Your task to perform on an android device: Open Yahoo.com Image 0: 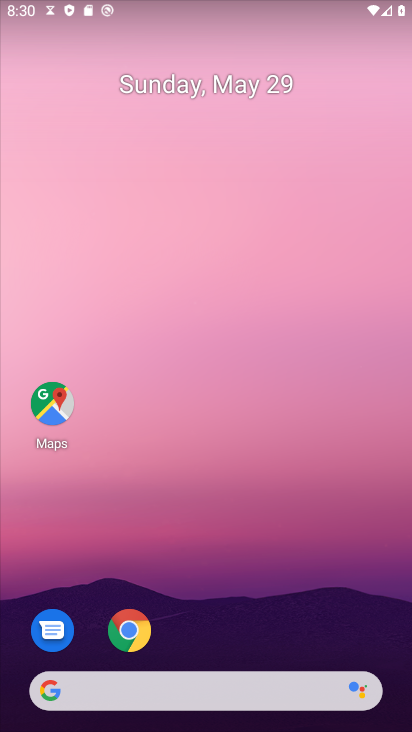
Step 0: click (128, 633)
Your task to perform on an android device: Open Yahoo.com Image 1: 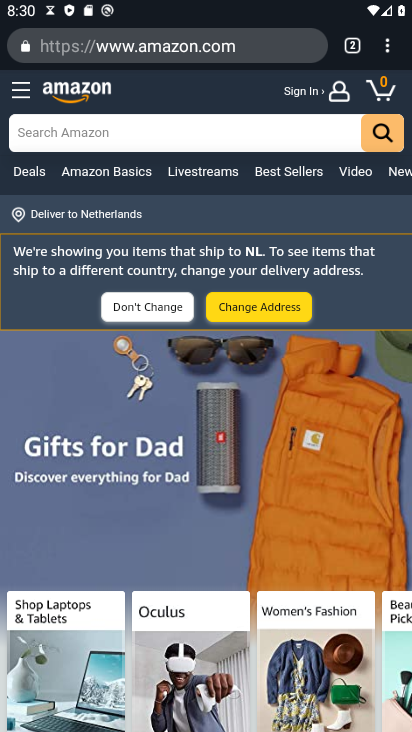
Step 1: click (353, 49)
Your task to perform on an android device: Open Yahoo.com Image 2: 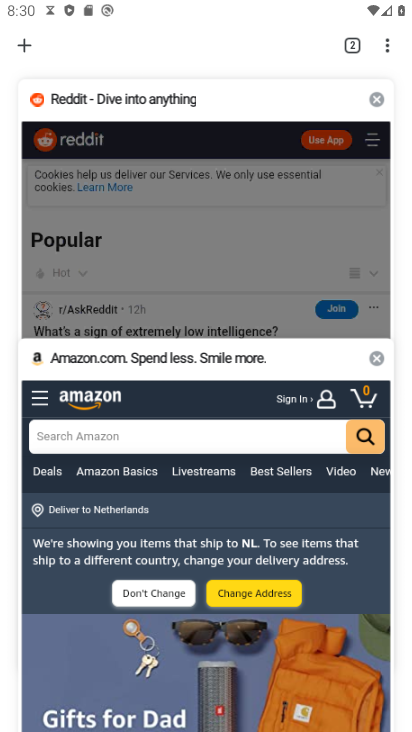
Step 2: click (21, 42)
Your task to perform on an android device: Open Yahoo.com Image 3: 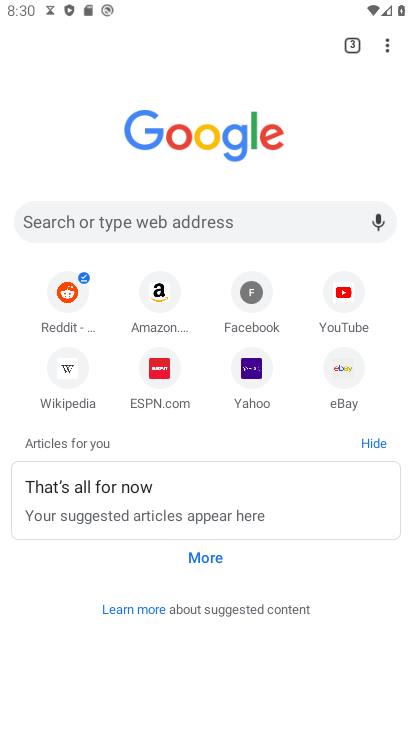
Step 3: click (251, 377)
Your task to perform on an android device: Open Yahoo.com Image 4: 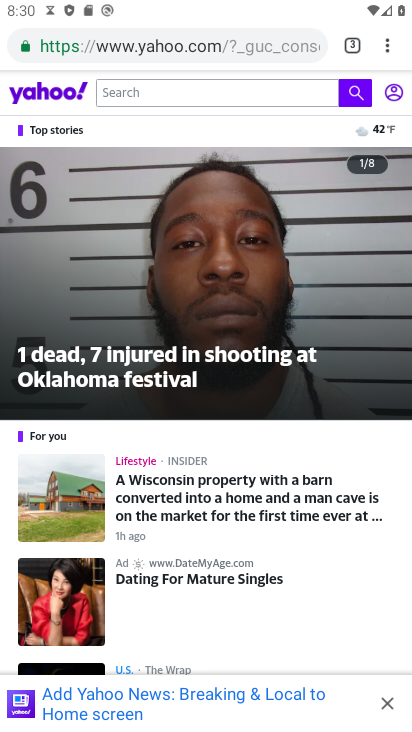
Step 4: task complete